Your task to perform on an android device: set the timer Image 0: 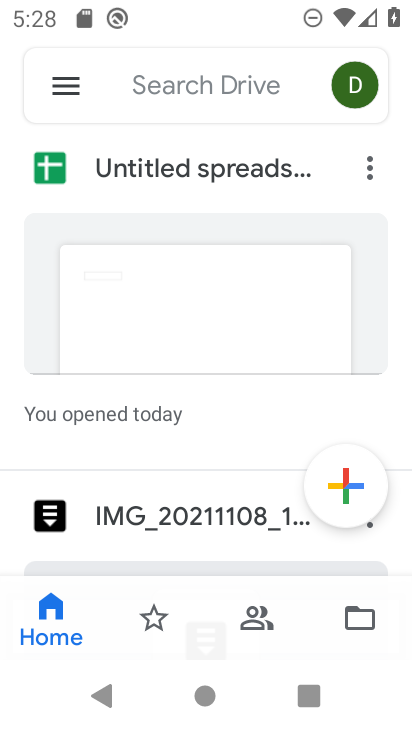
Step 0: press home button
Your task to perform on an android device: set the timer Image 1: 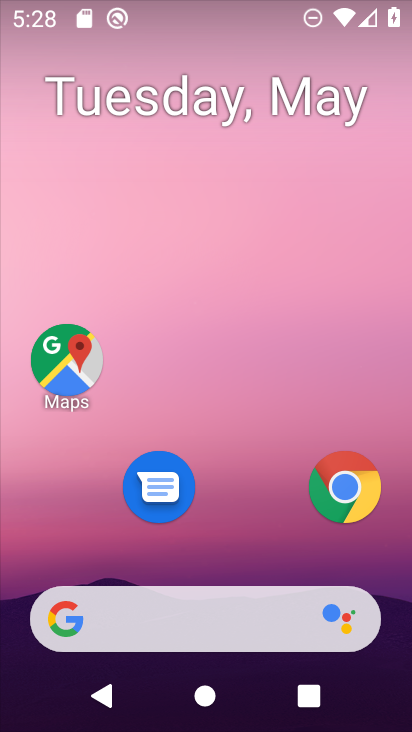
Step 1: drag from (241, 554) to (191, 127)
Your task to perform on an android device: set the timer Image 2: 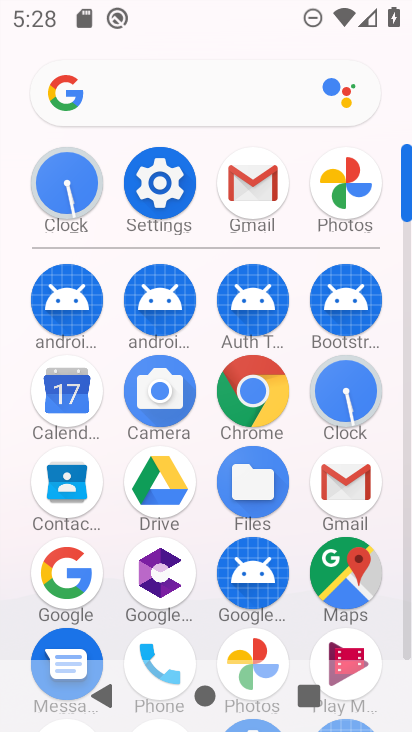
Step 2: click (58, 193)
Your task to perform on an android device: set the timer Image 3: 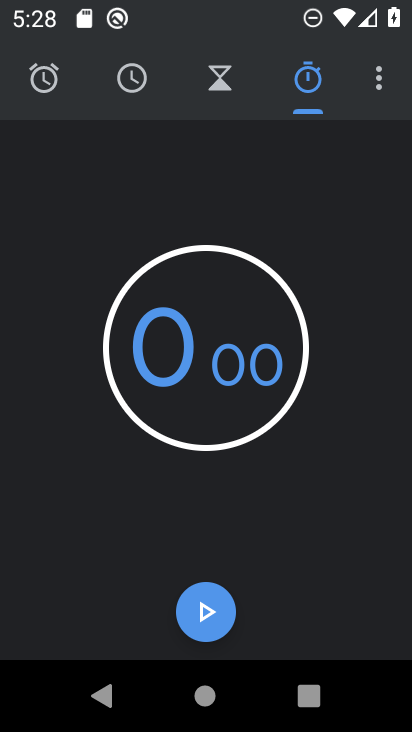
Step 3: click (250, 83)
Your task to perform on an android device: set the timer Image 4: 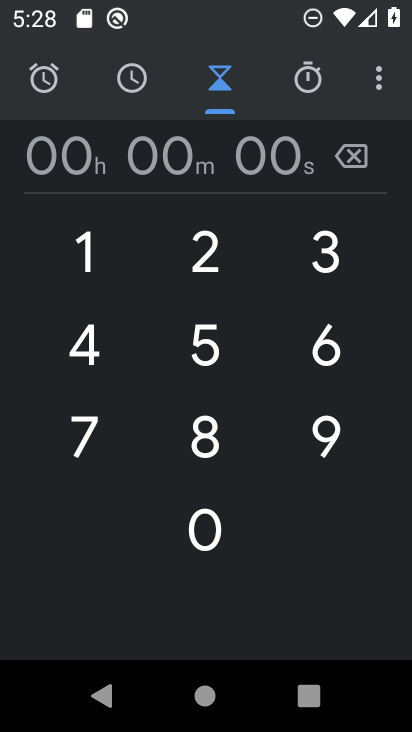
Step 4: task complete